Your task to perform on an android device: see sites visited before in the chrome app Image 0: 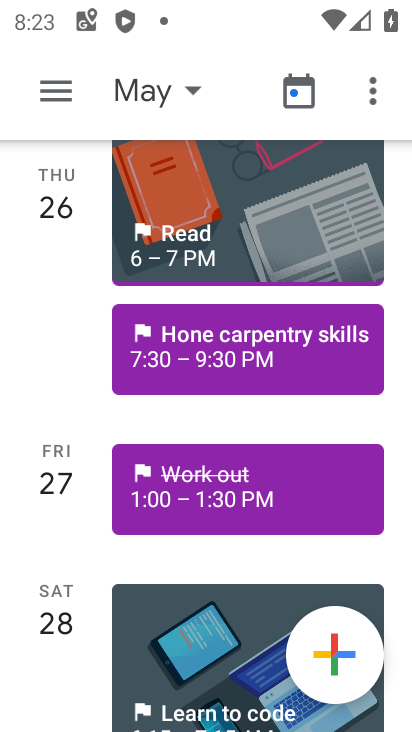
Step 0: press back button
Your task to perform on an android device: see sites visited before in the chrome app Image 1: 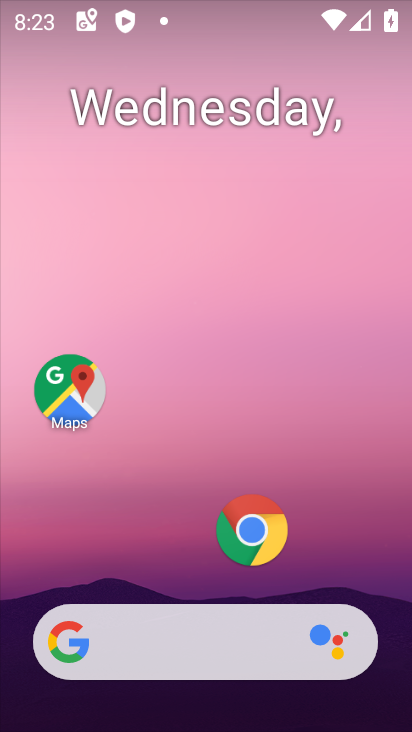
Step 1: click (241, 542)
Your task to perform on an android device: see sites visited before in the chrome app Image 2: 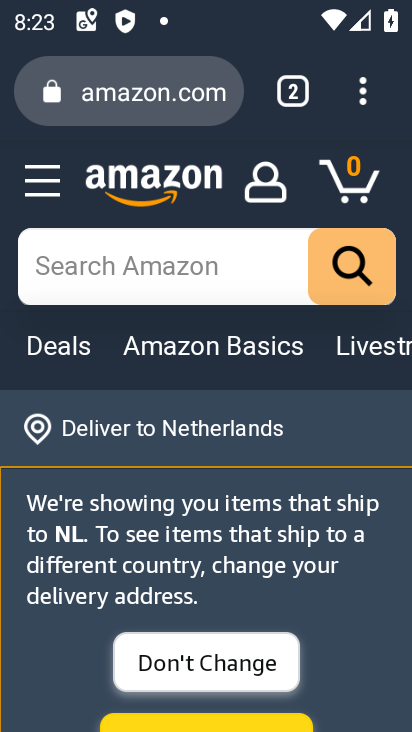
Step 2: task complete